Your task to perform on an android device: turn on the 24-hour format for clock Image 0: 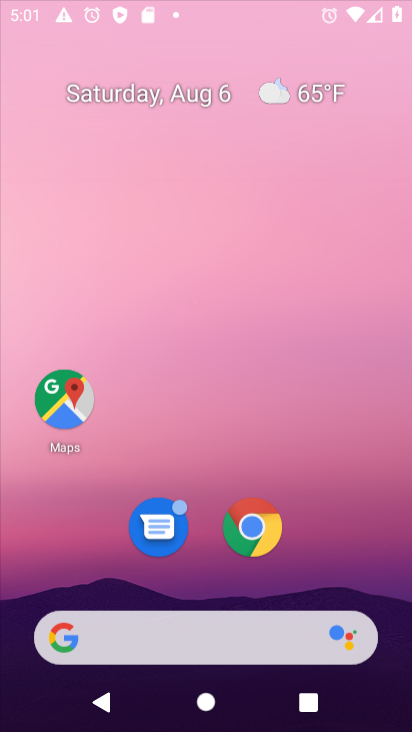
Step 0: click (230, 518)
Your task to perform on an android device: turn on the 24-hour format for clock Image 1: 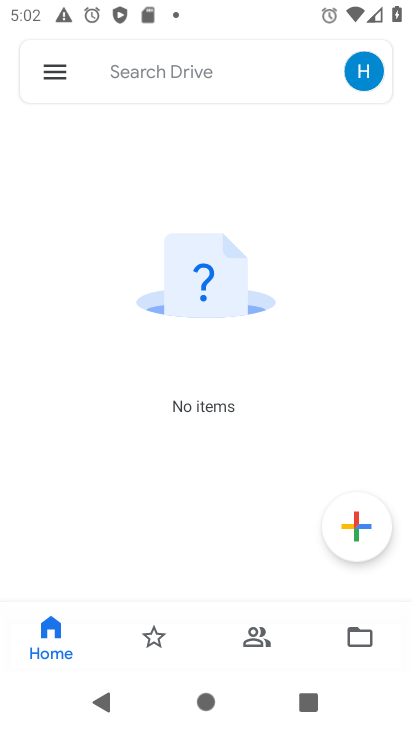
Step 1: press back button
Your task to perform on an android device: turn on the 24-hour format for clock Image 2: 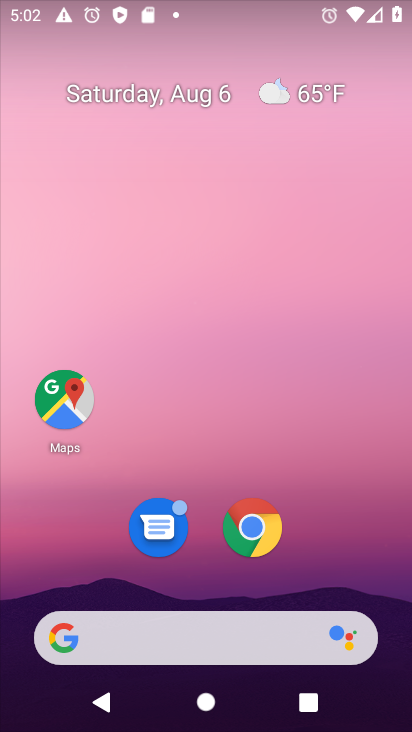
Step 2: drag from (160, 621) to (209, 20)
Your task to perform on an android device: turn on the 24-hour format for clock Image 3: 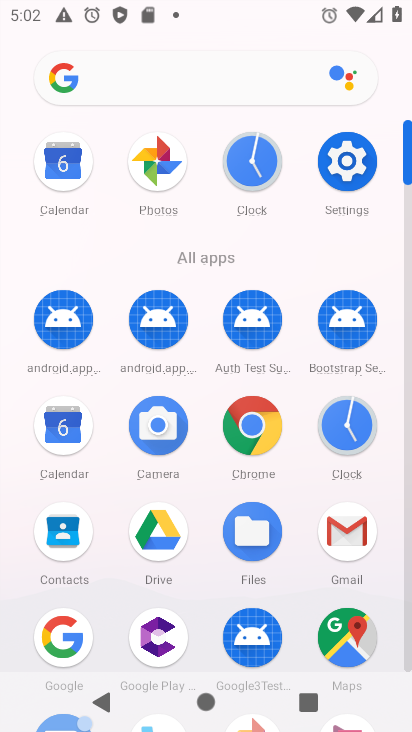
Step 3: click (338, 166)
Your task to perform on an android device: turn on the 24-hour format for clock Image 4: 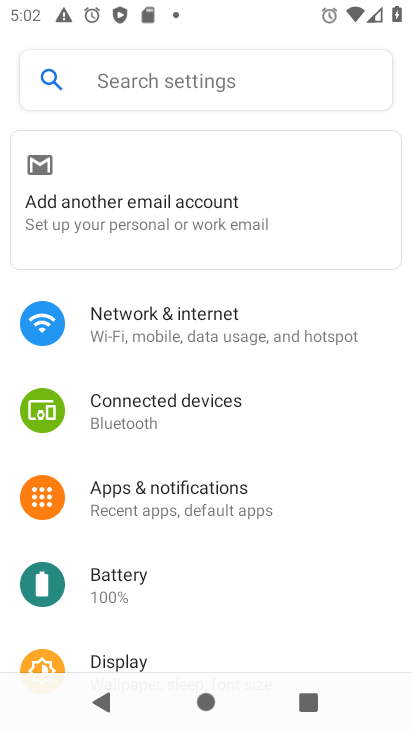
Step 4: drag from (182, 586) to (151, 39)
Your task to perform on an android device: turn on the 24-hour format for clock Image 5: 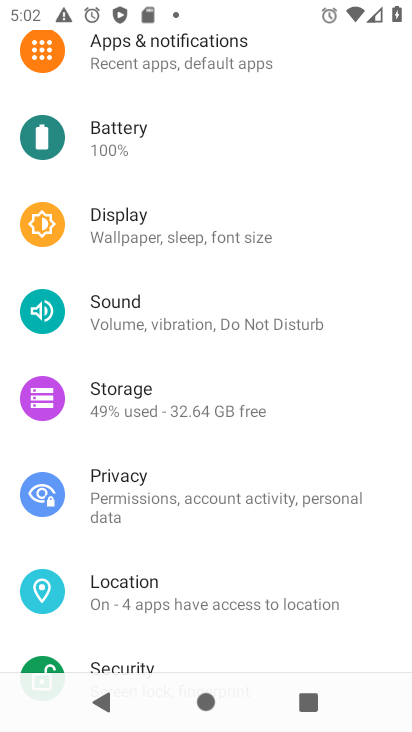
Step 5: drag from (168, 585) to (233, 17)
Your task to perform on an android device: turn on the 24-hour format for clock Image 6: 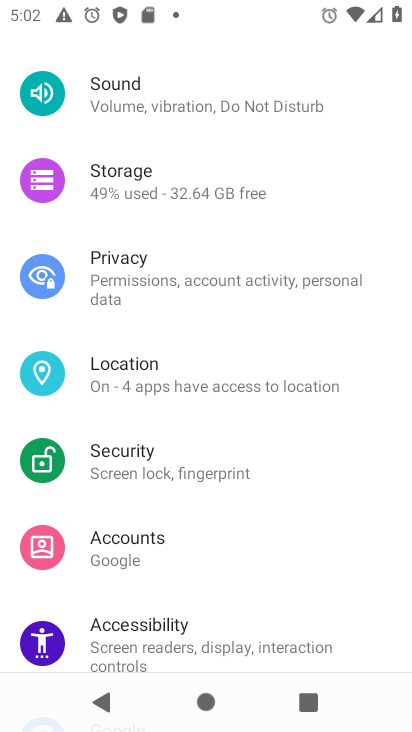
Step 6: drag from (196, 638) to (237, 29)
Your task to perform on an android device: turn on the 24-hour format for clock Image 7: 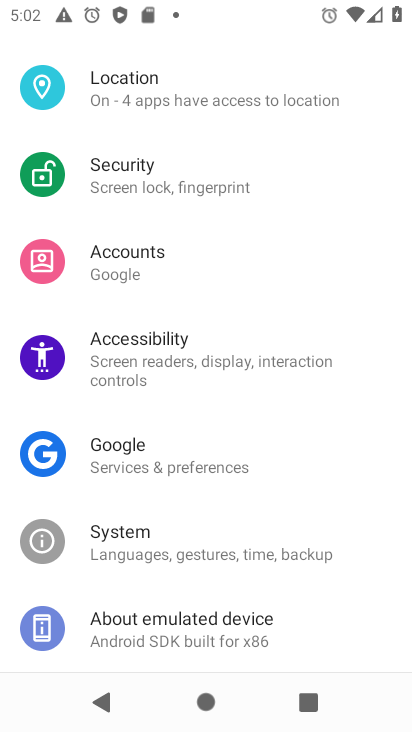
Step 7: click (167, 544)
Your task to perform on an android device: turn on the 24-hour format for clock Image 8: 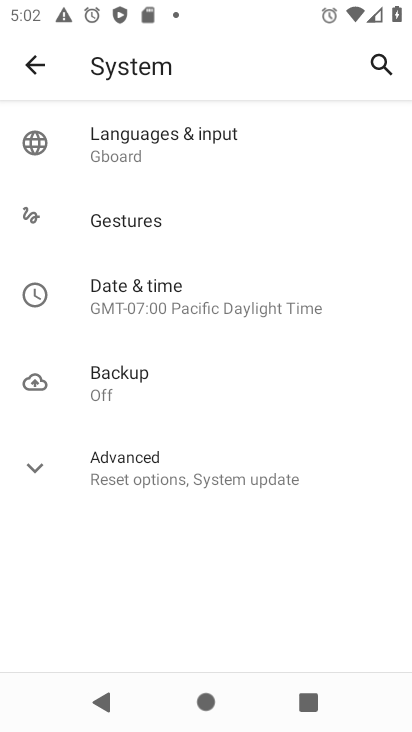
Step 8: click (129, 310)
Your task to perform on an android device: turn on the 24-hour format for clock Image 9: 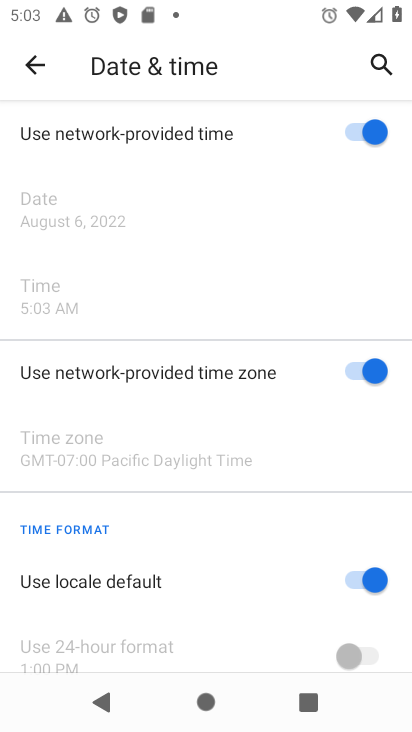
Step 9: click (360, 584)
Your task to perform on an android device: turn on the 24-hour format for clock Image 10: 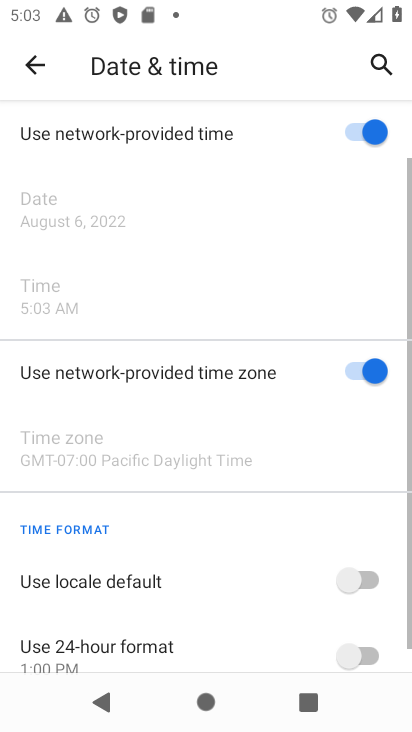
Step 10: click (361, 651)
Your task to perform on an android device: turn on the 24-hour format for clock Image 11: 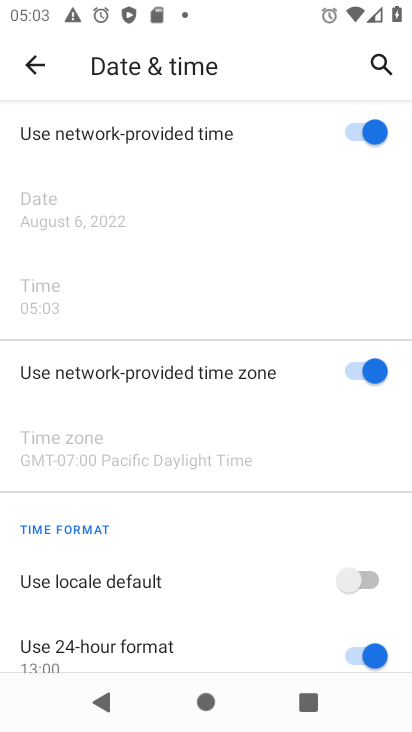
Step 11: task complete